Your task to perform on an android device: open a bookmark in the chrome app Image 0: 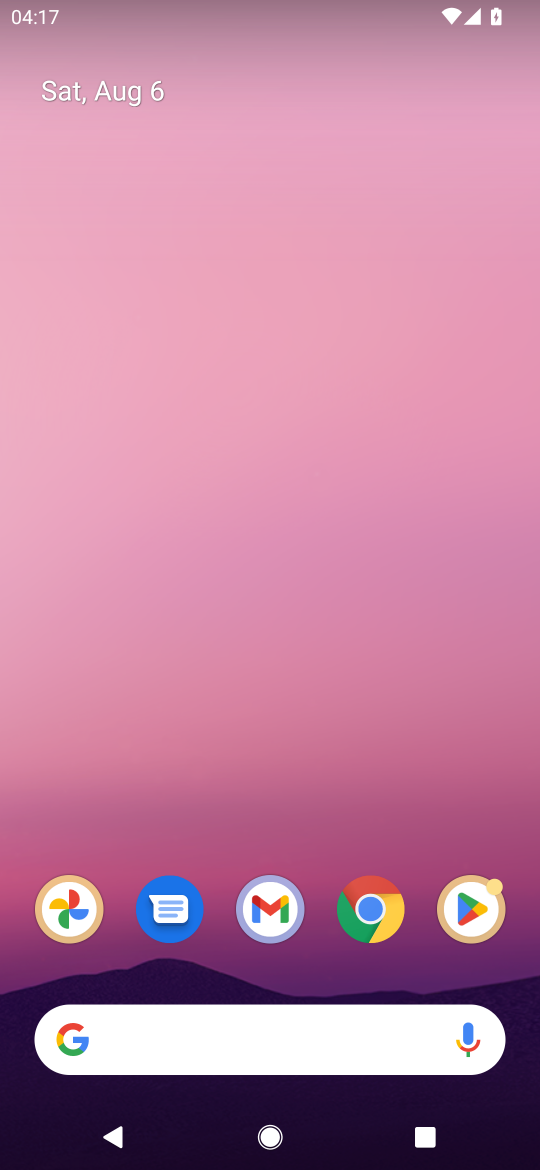
Step 0: click (370, 918)
Your task to perform on an android device: open a bookmark in the chrome app Image 1: 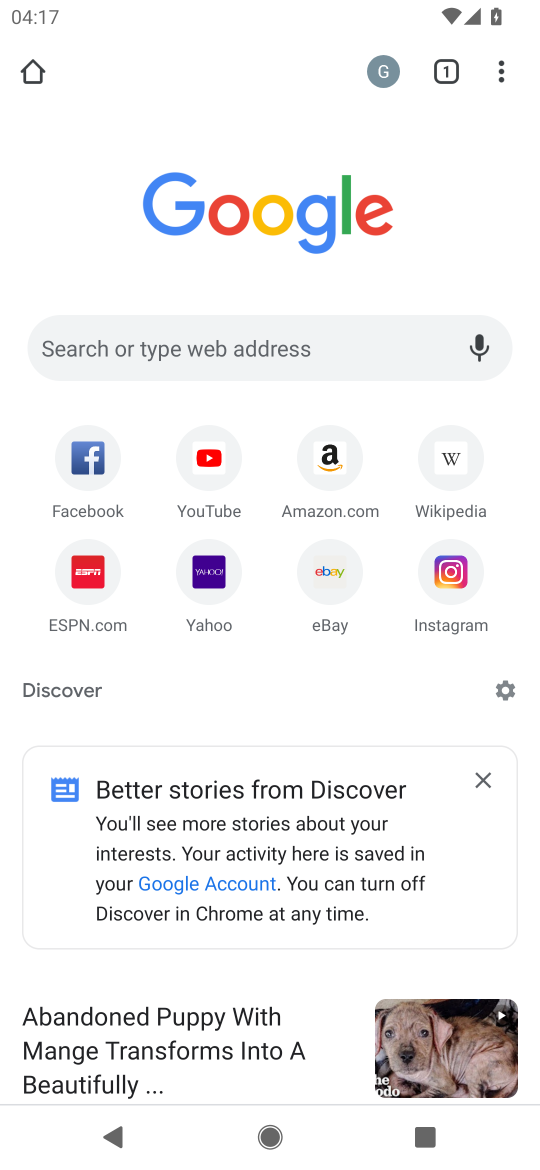
Step 1: drag from (500, 69) to (303, 508)
Your task to perform on an android device: open a bookmark in the chrome app Image 2: 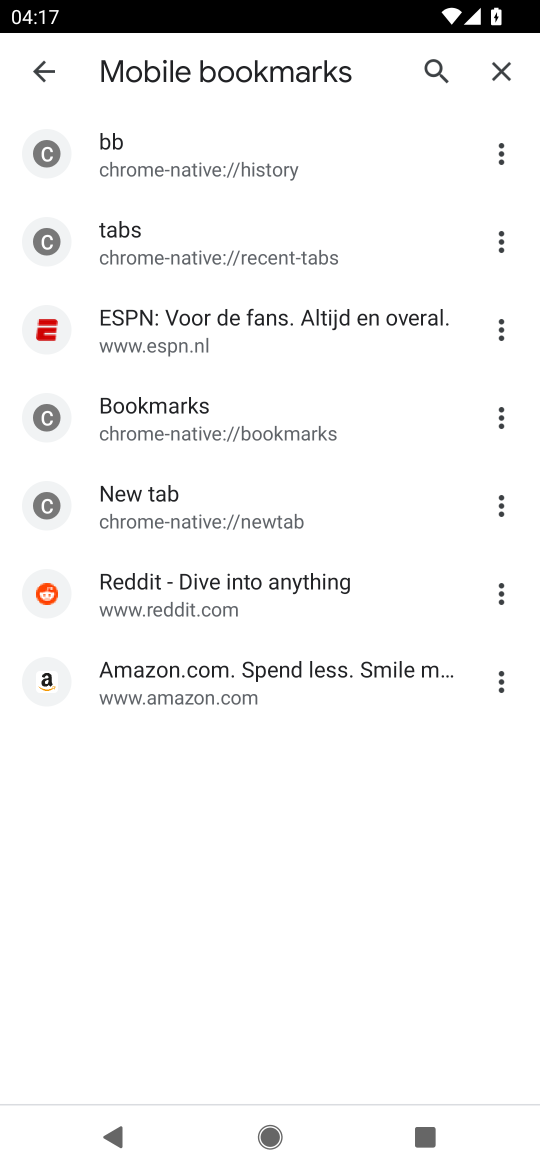
Step 2: click (203, 304)
Your task to perform on an android device: open a bookmark in the chrome app Image 3: 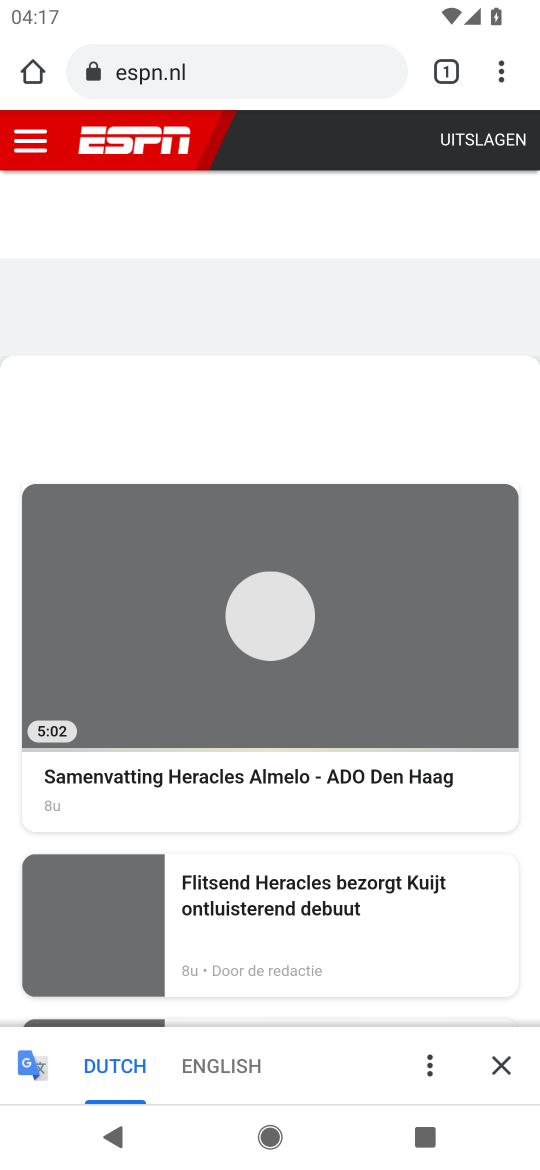
Step 3: task complete